Your task to perform on an android device: Is it going to rain tomorrow? Image 0: 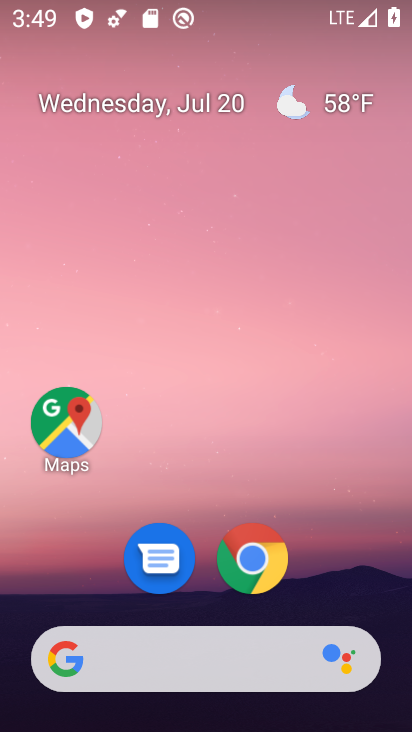
Step 0: click (184, 655)
Your task to perform on an android device: Is it going to rain tomorrow? Image 1: 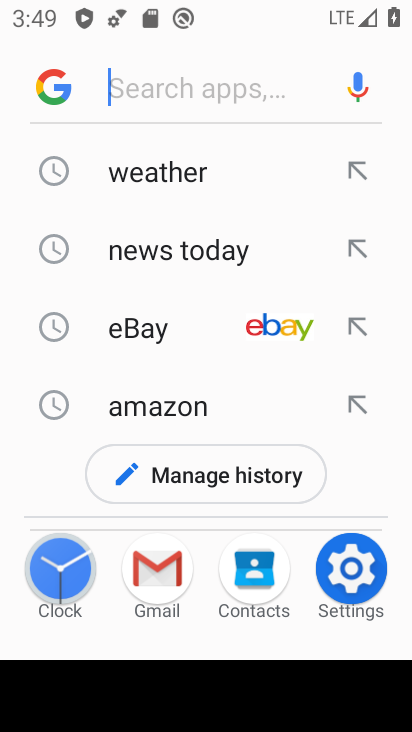
Step 1: click (161, 177)
Your task to perform on an android device: Is it going to rain tomorrow? Image 2: 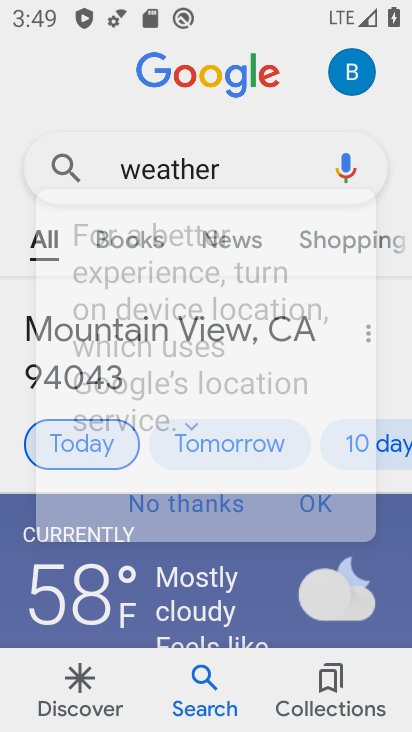
Step 2: click (229, 445)
Your task to perform on an android device: Is it going to rain tomorrow? Image 3: 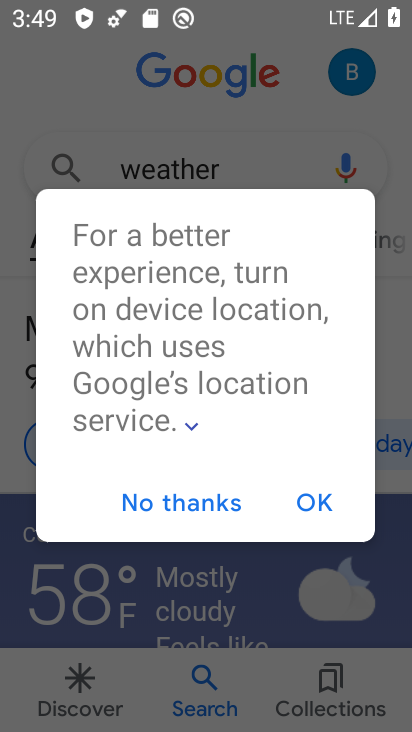
Step 3: click (222, 513)
Your task to perform on an android device: Is it going to rain tomorrow? Image 4: 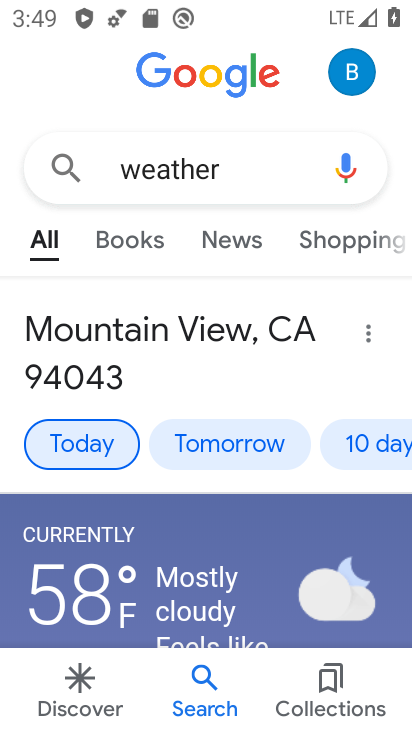
Step 4: click (230, 447)
Your task to perform on an android device: Is it going to rain tomorrow? Image 5: 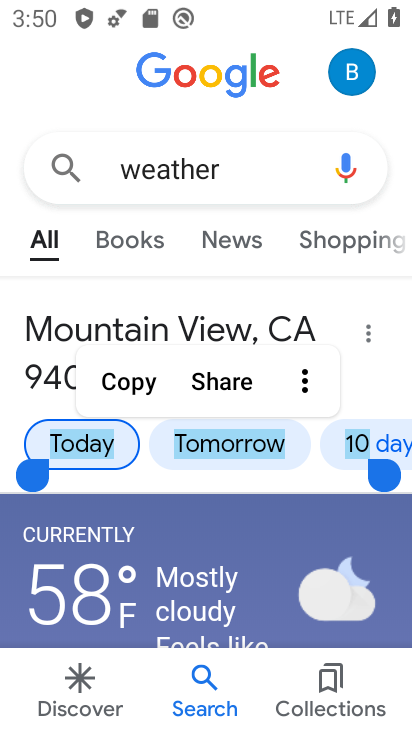
Step 5: click (197, 560)
Your task to perform on an android device: Is it going to rain tomorrow? Image 6: 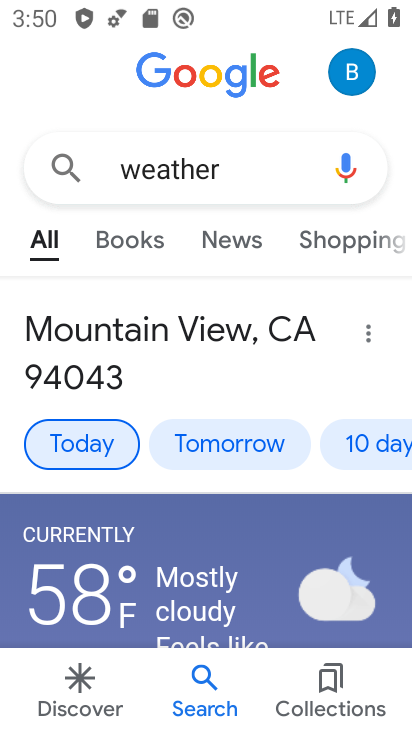
Step 6: click (219, 441)
Your task to perform on an android device: Is it going to rain tomorrow? Image 7: 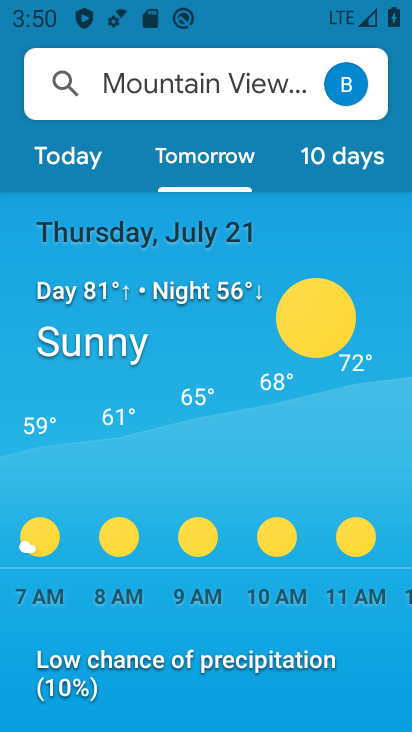
Step 7: task complete